Your task to perform on an android device: toggle data saver in the chrome app Image 0: 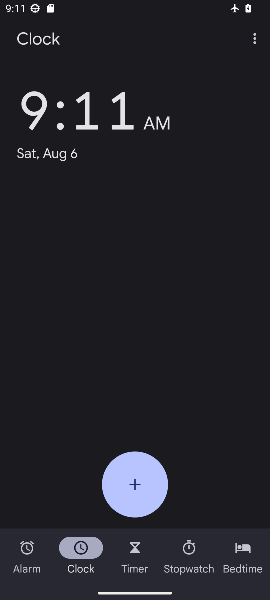
Step 0: press home button
Your task to perform on an android device: toggle data saver in the chrome app Image 1: 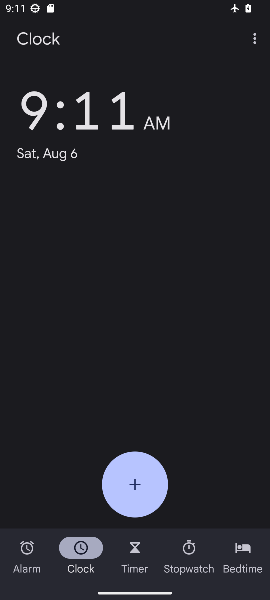
Step 1: press home button
Your task to perform on an android device: toggle data saver in the chrome app Image 2: 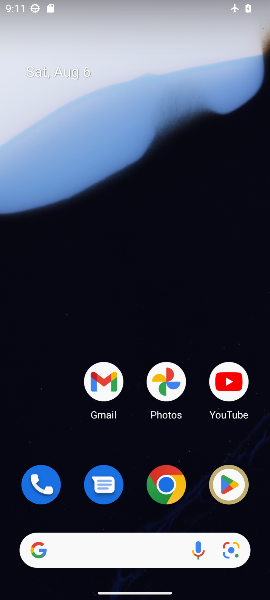
Step 2: press home button
Your task to perform on an android device: toggle data saver in the chrome app Image 3: 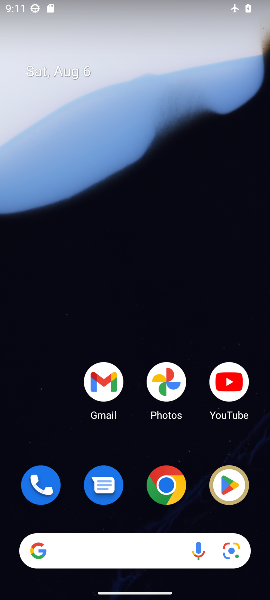
Step 3: press home button
Your task to perform on an android device: toggle data saver in the chrome app Image 4: 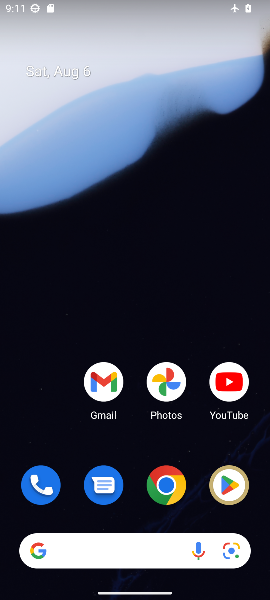
Step 4: drag from (204, 457) to (202, 58)
Your task to perform on an android device: toggle data saver in the chrome app Image 5: 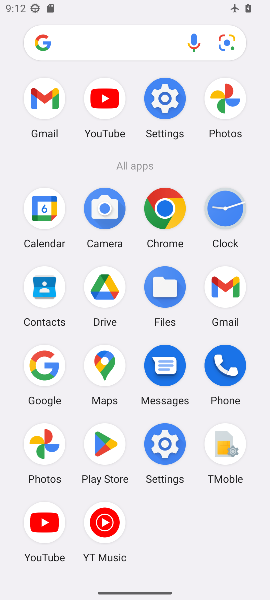
Step 5: click (168, 207)
Your task to perform on an android device: toggle data saver in the chrome app Image 6: 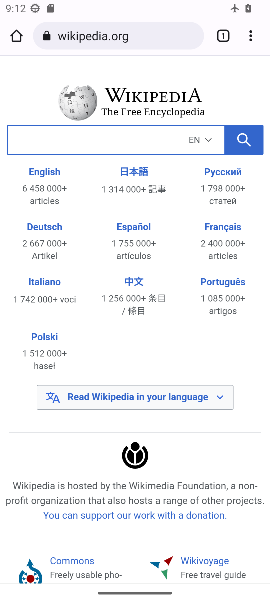
Step 6: drag from (254, 24) to (129, 435)
Your task to perform on an android device: toggle data saver in the chrome app Image 7: 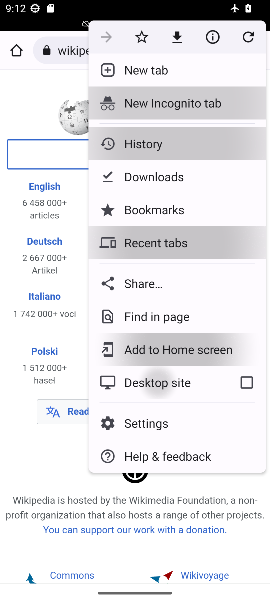
Step 7: click (127, 449)
Your task to perform on an android device: toggle data saver in the chrome app Image 8: 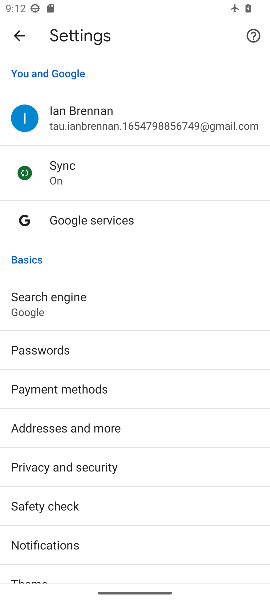
Step 8: drag from (151, 438) to (172, 123)
Your task to perform on an android device: toggle data saver in the chrome app Image 9: 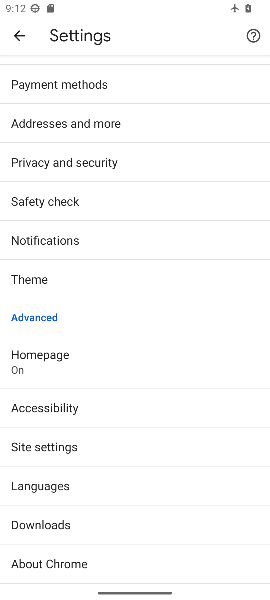
Step 9: drag from (118, 503) to (131, 281)
Your task to perform on an android device: toggle data saver in the chrome app Image 10: 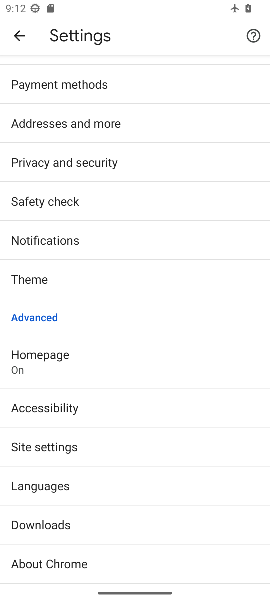
Step 10: click (46, 370)
Your task to perform on an android device: toggle data saver in the chrome app Image 11: 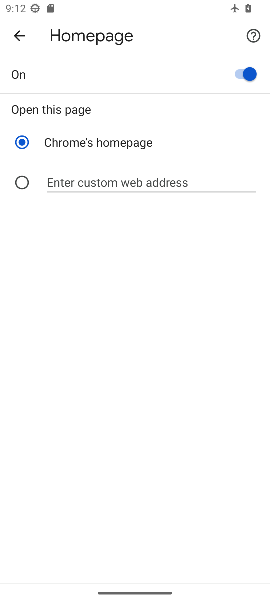
Step 11: click (18, 26)
Your task to perform on an android device: toggle data saver in the chrome app Image 12: 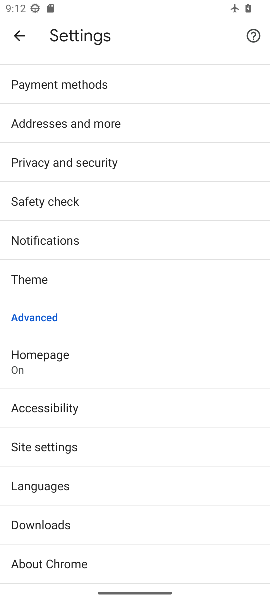
Step 12: click (70, 405)
Your task to perform on an android device: toggle data saver in the chrome app Image 13: 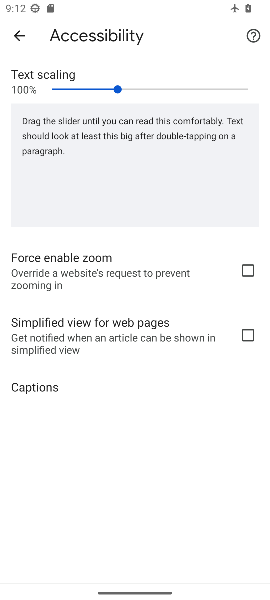
Step 13: click (16, 36)
Your task to perform on an android device: toggle data saver in the chrome app Image 14: 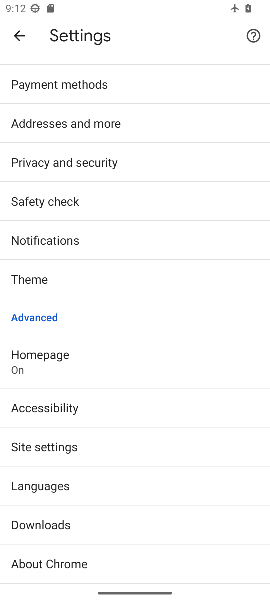
Step 14: click (55, 487)
Your task to perform on an android device: toggle data saver in the chrome app Image 15: 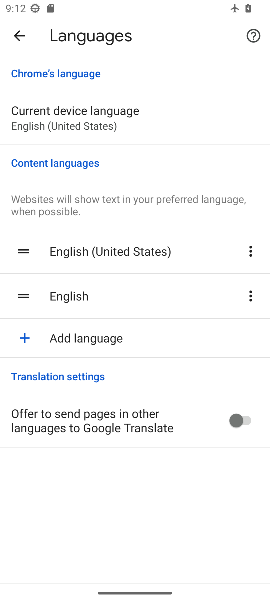
Step 15: click (18, 29)
Your task to perform on an android device: toggle data saver in the chrome app Image 16: 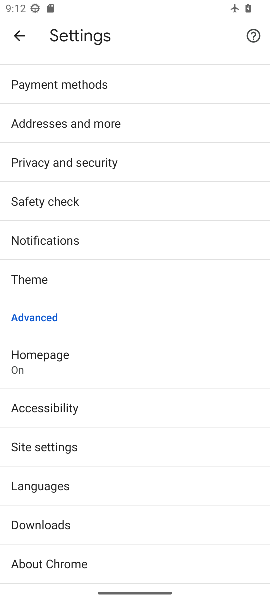
Step 16: click (97, 526)
Your task to perform on an android device: toggle data saver in the chrome app Image 17: 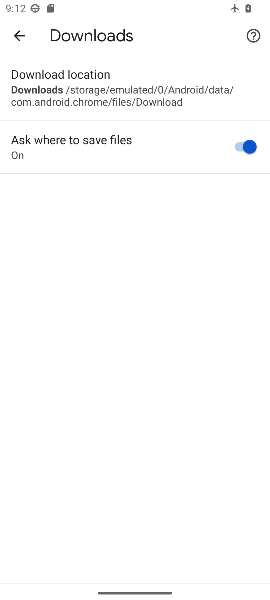
Step 17: click (25, 35)
Your task to perform on an android device: toggle data saver in the chrome app Image 18: 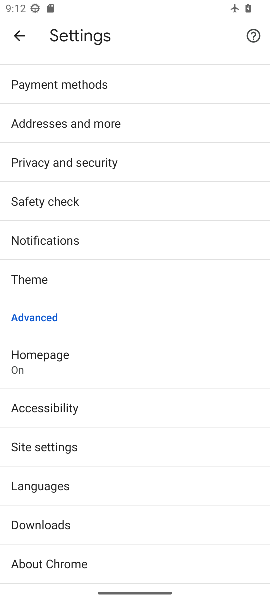
Step 18: drag from (76, 275) to (85, 524)
Your task to perform on an android device: toggle data saver in the chrome app Image 19: 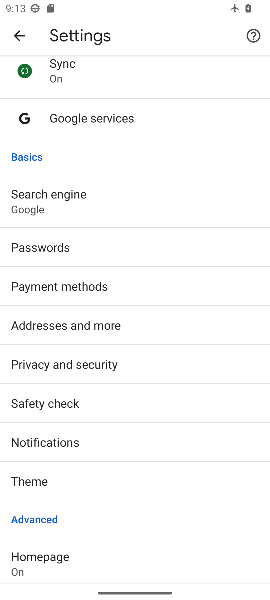
Step 19: click (95, 355)
Your task to perform on an android device: toggle data saver in the chrome app Image 20: 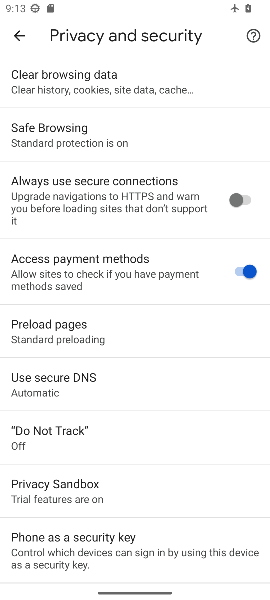
Step 20: task complete